Your task to perform on an android device: turn on wifi Image 0: 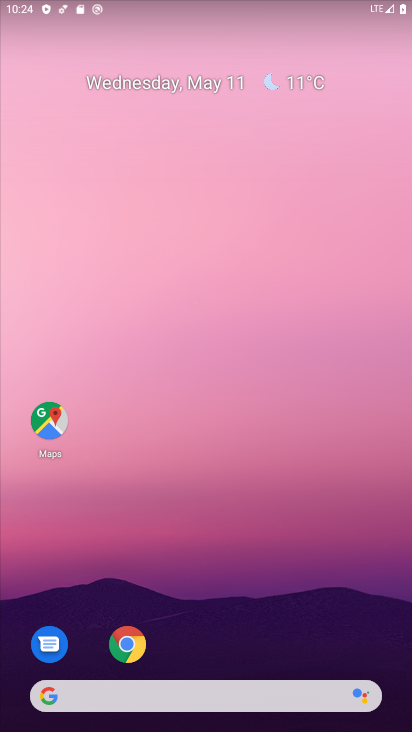
Step 0: drag from (211, 11) to (219, 655)
Your task to perform on an android device: turn on wifi Image 1: 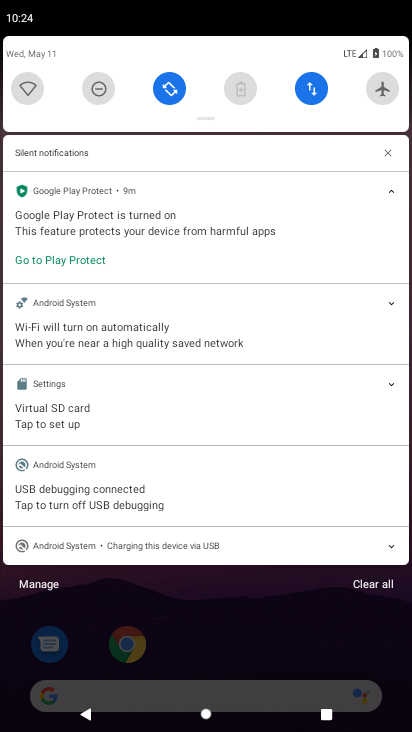
Step 1: click (28, 81)
Your task to perform on an android device: turn on wifi Image 2: 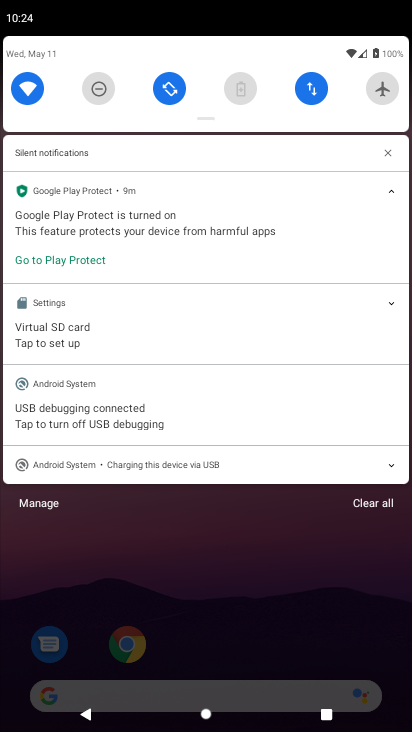
Step 2: task complete